Your task to perform on an android device: Clear the cart on walmart. Search for "asus rog" on walmart, select the first entry, add it to the cart, then select checkout. Image 0: 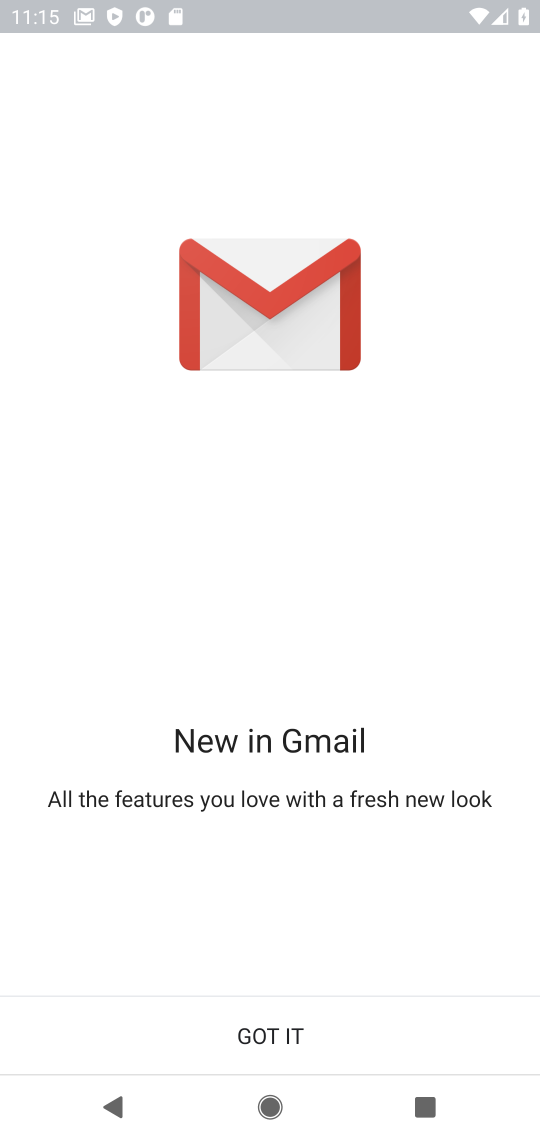
Step 0: press home button
Your task to perform on an android device: Clear the cart on walmart. Search for "asus rog" on walmart, select the first entry, add it to the cart, then select checkout. Image 1: 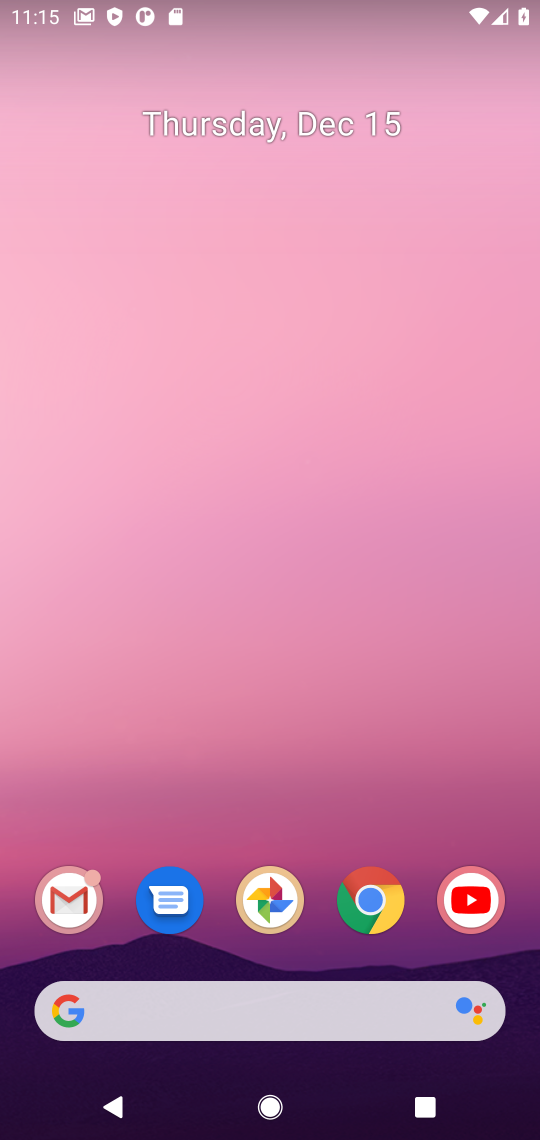
Step 1: click (391, 898)
Your task to perform on an android device: Clear the cart on walmart. Search for "asus rog" on walmart, select the first entry, add it to the cart, then select checkout. Image 2: 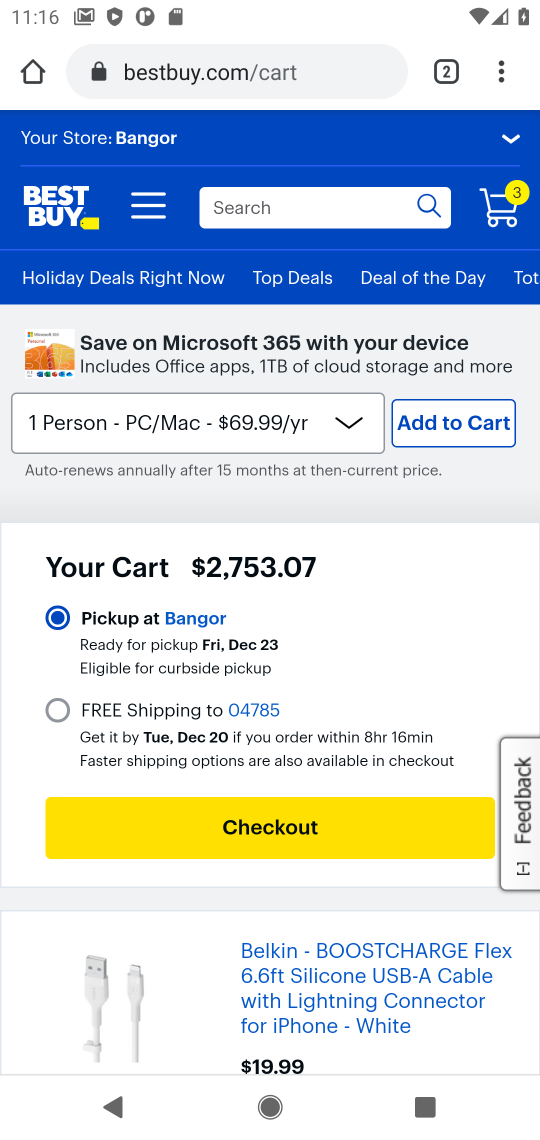
Step 2: click (349, 75)
Your task to perform on an android device: Clear the cart on walmart. Search for "asus rog" on walmart, select the first entry, add it to the cart, then select checkout. Image 3: 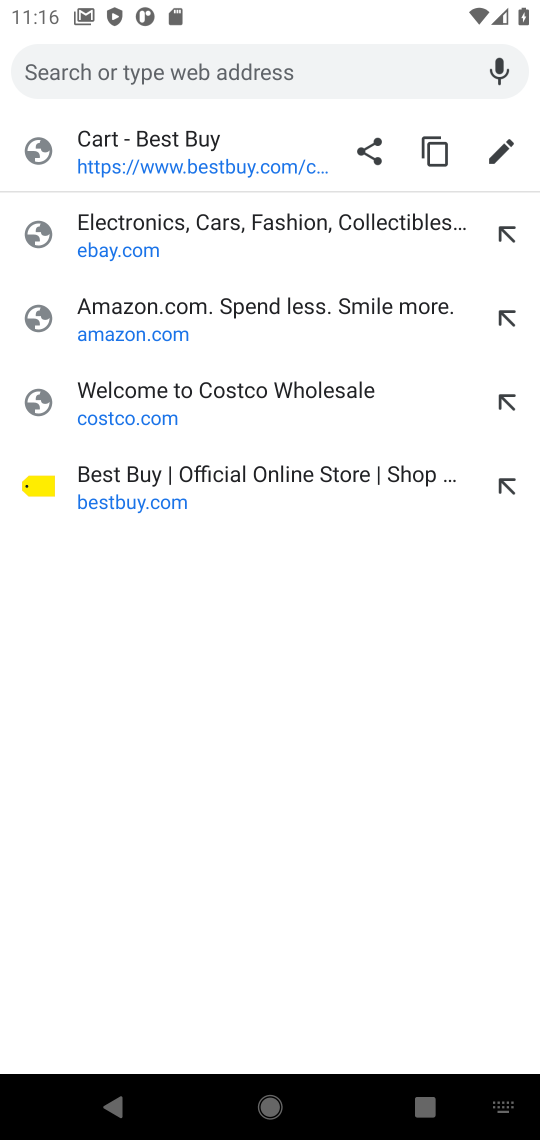
Step 3: press enter
Your task to perform on an android device: Clear the cart on walmart. Search for "asus rog" on walmart, select the first entry, add it to the cart, then select checkout. Image 4: 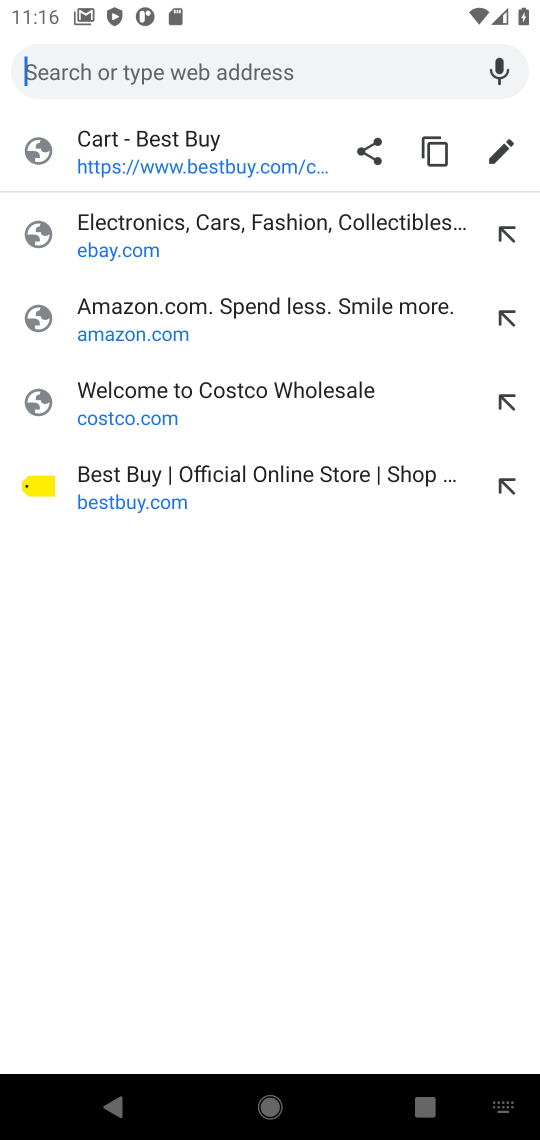
Step 4: type "walmart"
Your task to perform on an android device: Clear the cart on walmart. Search for "asus rog" on walmart, select the first entry, add it to the cart, then select checkout. Image 5: 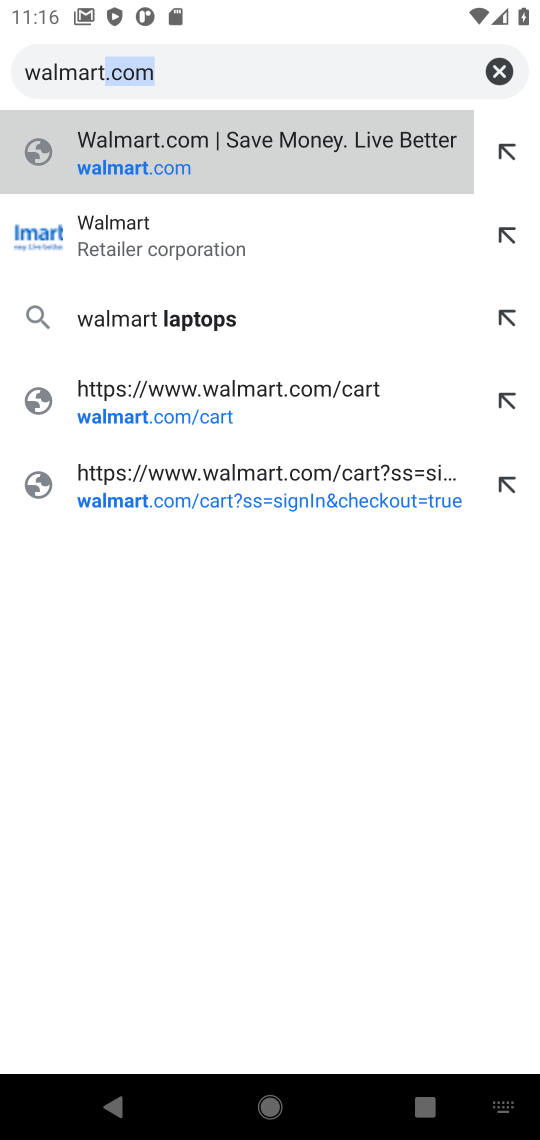
Step 5: click (292, 143)
Your task to perform on an android device: Clear the cart on walmart. Search for "asus rog" on walmart, select the first entry, add it to the cart, then select checkout. Image 6: 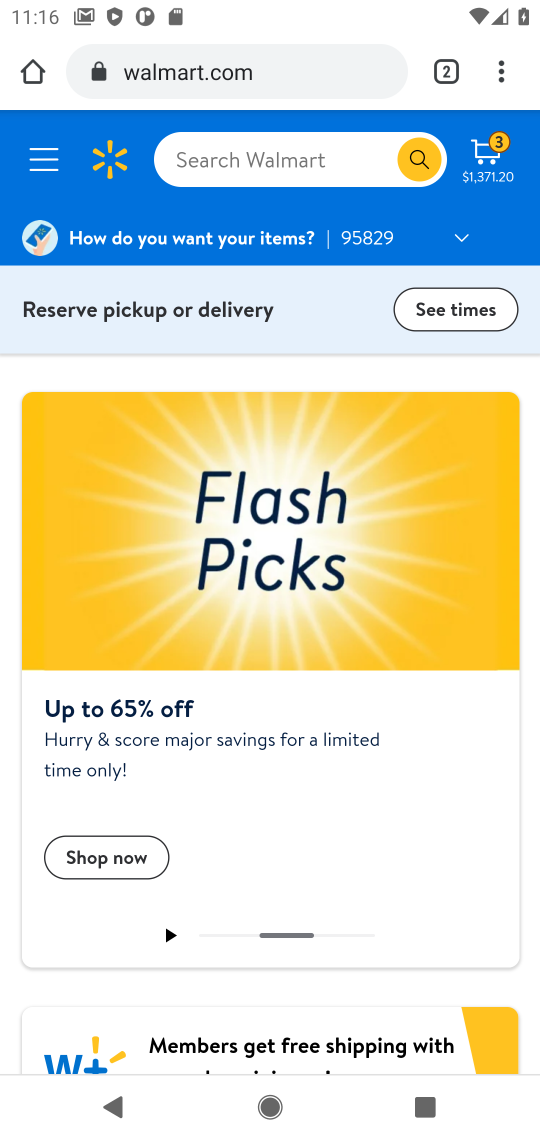
Step 6: click (494, 154)
Your task to perform on an android device: Clear the cart on walmart. Search for "asus rog" on walmart, select the first entry, add it to the cart, then select checkout. Image 7: 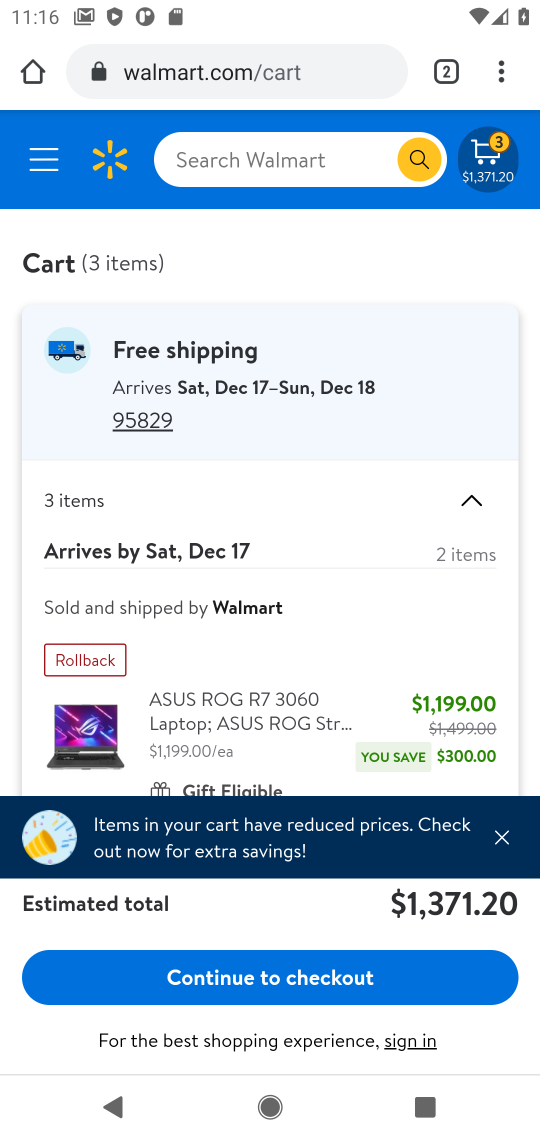
Step 7: click (502, 840)
Your task to perform on an android device: Clear the cart on walmart. Search for "asus rog" on walmart, select the first entry, add it to the cart, then select checkout. Image 8: 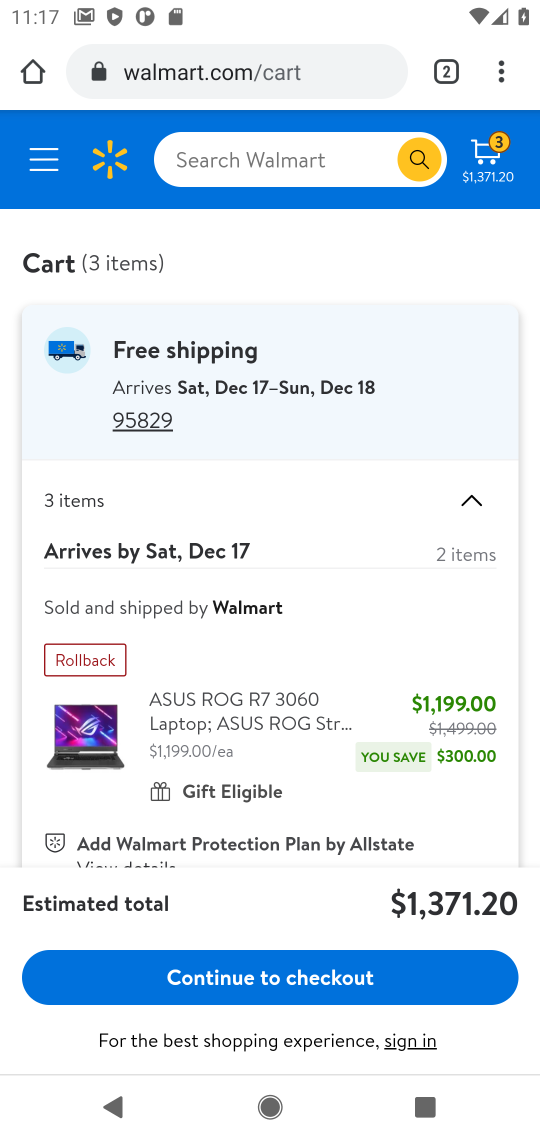
Step 8: drag from (315, 782) to (440, 440)
Your task to perform on an android device: Clear the cart on walmart. Search for "asus rog" on walmart, select the first entry, add it to the cart, then select checkout. Image 9: 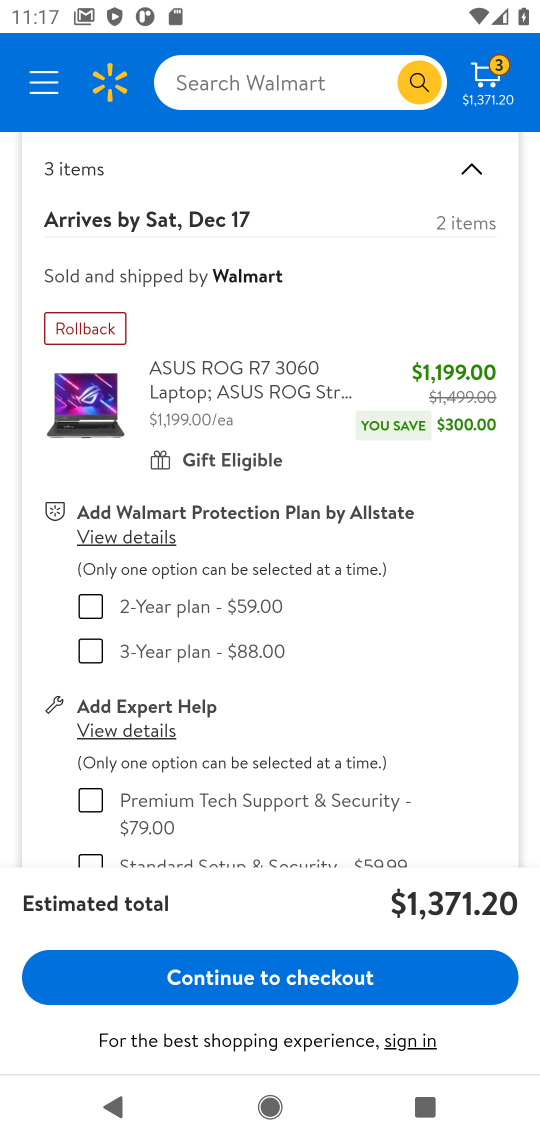
Step 9: drag from (307, 674) to (456, 385)
Your task to perform on an android device: Clear the cart on walmart. Search for "asus rog" on walmart, select the first entry, add it to the cart, then select checkout. Image 10: 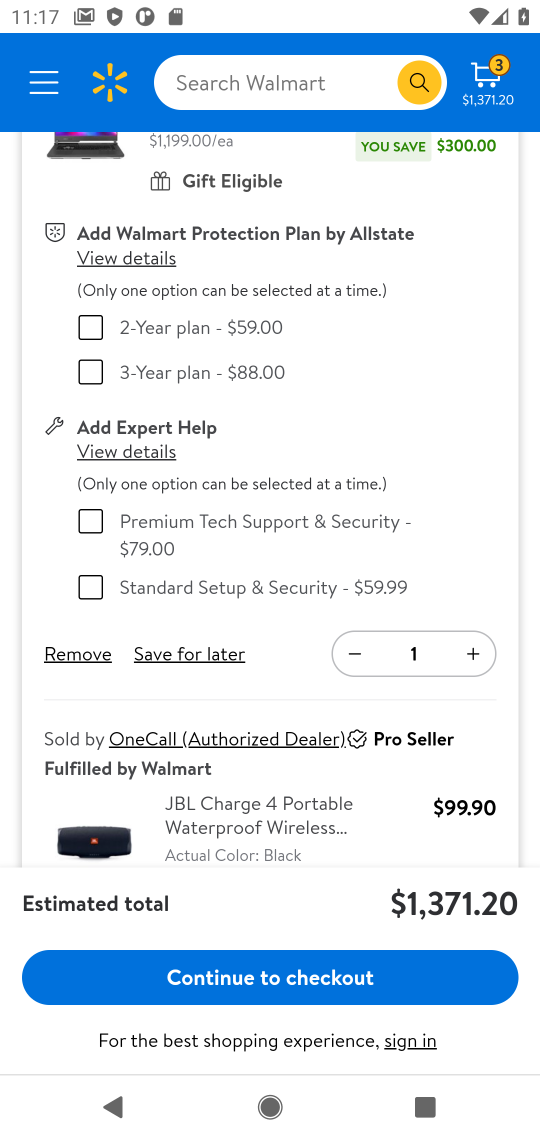
Step 10: click (79, 651)
Your task to perform on an android device: Clear the cart on walmart. Search for "asus rog" on walmart, select the first entry, add it to the cart, then select checkout. Image 11: 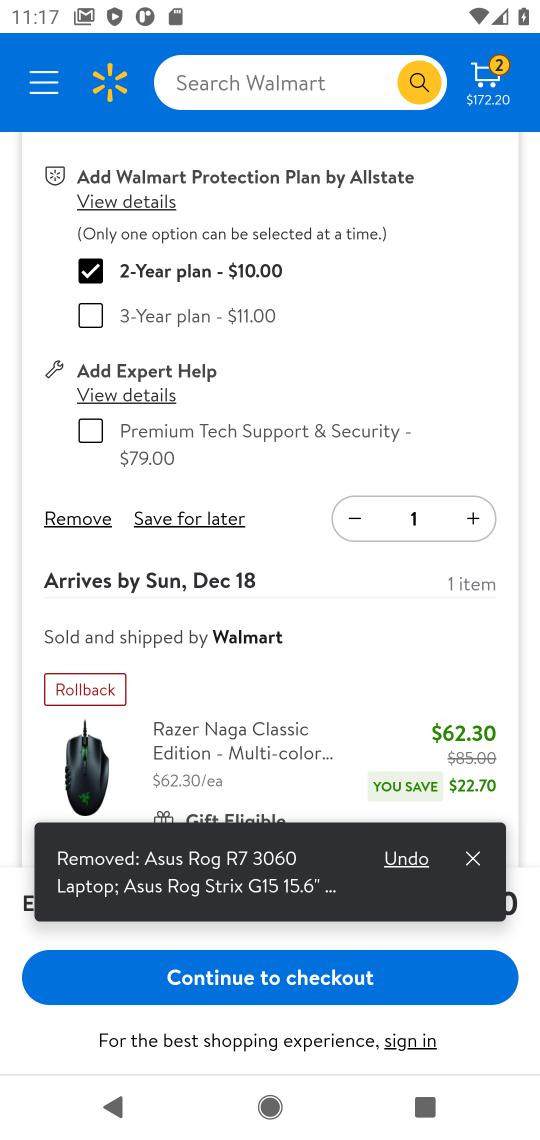
Step 11: click (84, 520)
Your task to perform on an android device: Clear the cart on walmart. Search for "asus rog" on walmart, select the first entry, add it to the cart, then select checkout. Image 12: 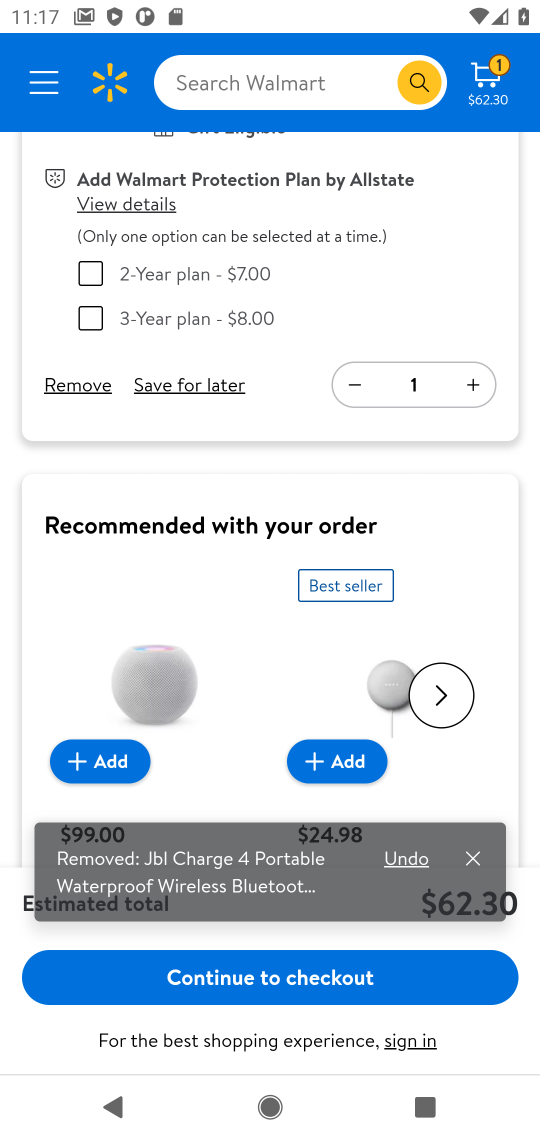
Step 12: click (88, 384)
Your task to perform on an android device: Clear the cart on walmart. Search for "asus rog" on walmart, select the first entry, add it to the cart, then select checkout. Image 13: 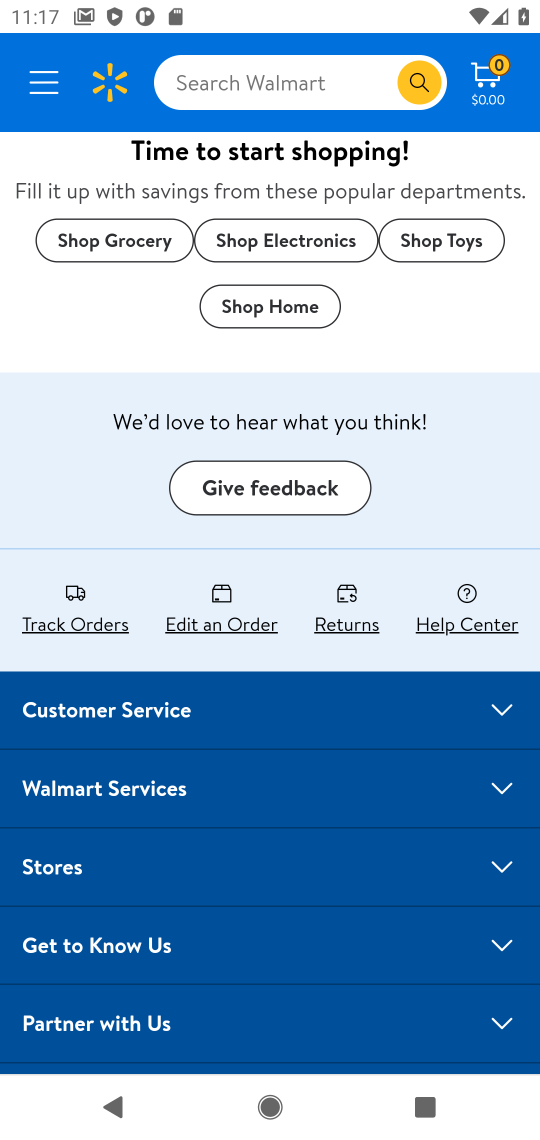
Step 13: click (331, 86)
Your task to perform on an android device: Clear the cart on walmart. Search for "asus rog" on walmart, select the first entry, add it to the cart, then select checkout. Image 14: 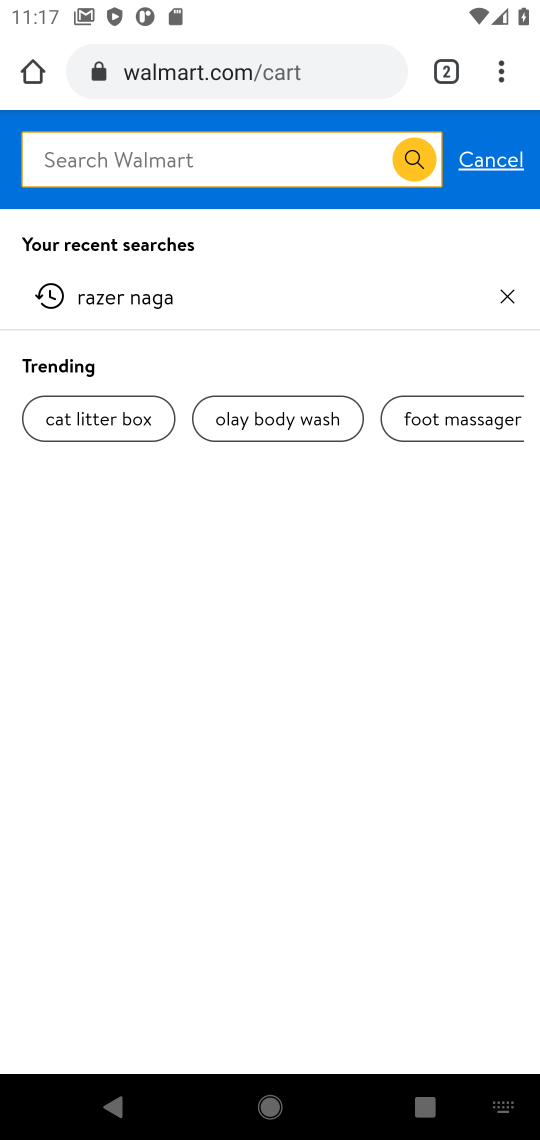
Step 14: press enter
Your task to perform on an android device: Clear the cart on walmart. Search for "asus rog" on walmart, select the first entry, add it to the cart, then select checkout. Image 15: 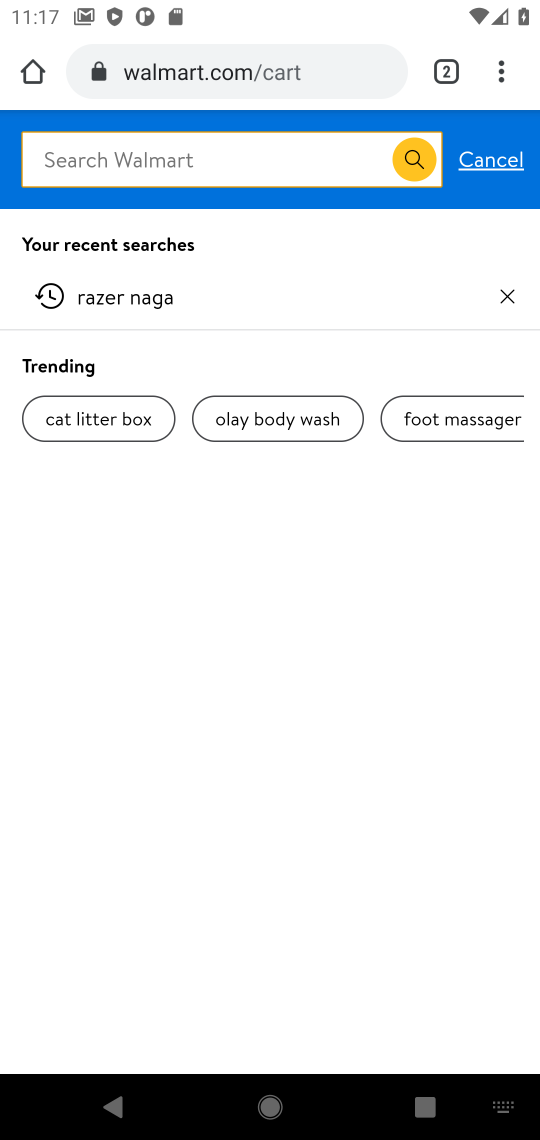
Step 15: type "asus rog"
Your task to perform on an android device: Clear the cart on walmart. Search for "asus rog" on walmart, select the first entry, add it to the cart, then select checkout. Image 16: 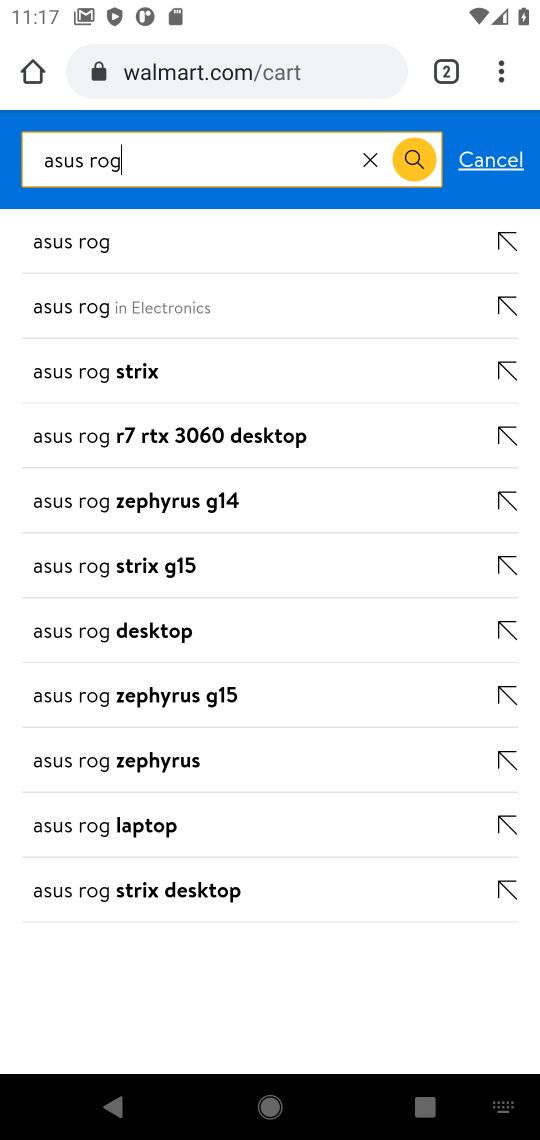
Step 16: click (84, 240)
Your task to perform on an android device: Clear the cart on walmart. Search for "asus rog" on walmart, select the first entry, add it to the cart, then select checkout. Image 17: 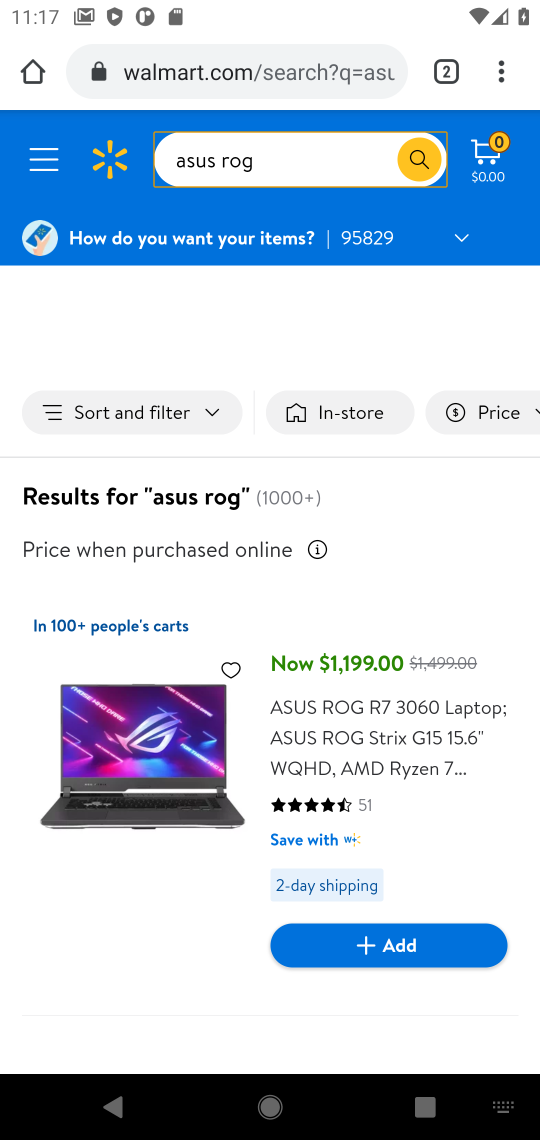
Step 17: click (156, 761)
Your task to perform on an android device: Clear the cart on walmart. Search for "asus rog" on walmart, select the first entry, add it to the cart, then select checkout. Image 18: 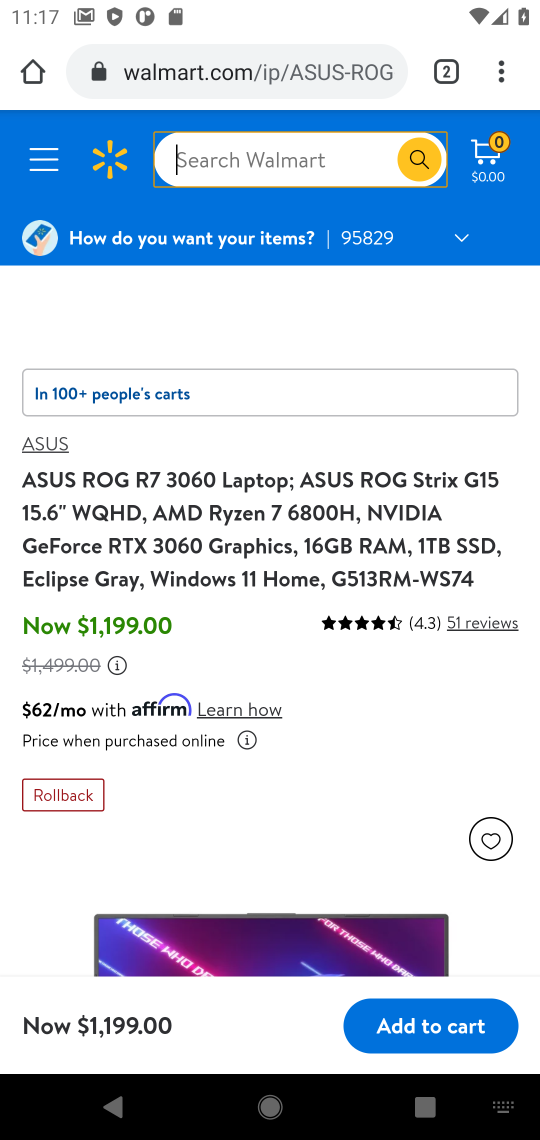
Step 18: click (414, 1023)
Your task to perform on an android device: Clear the cart on walmart. Search for "asus rog" on walmart, select the first entry, add it to the cart, then select checkout. Image 19: 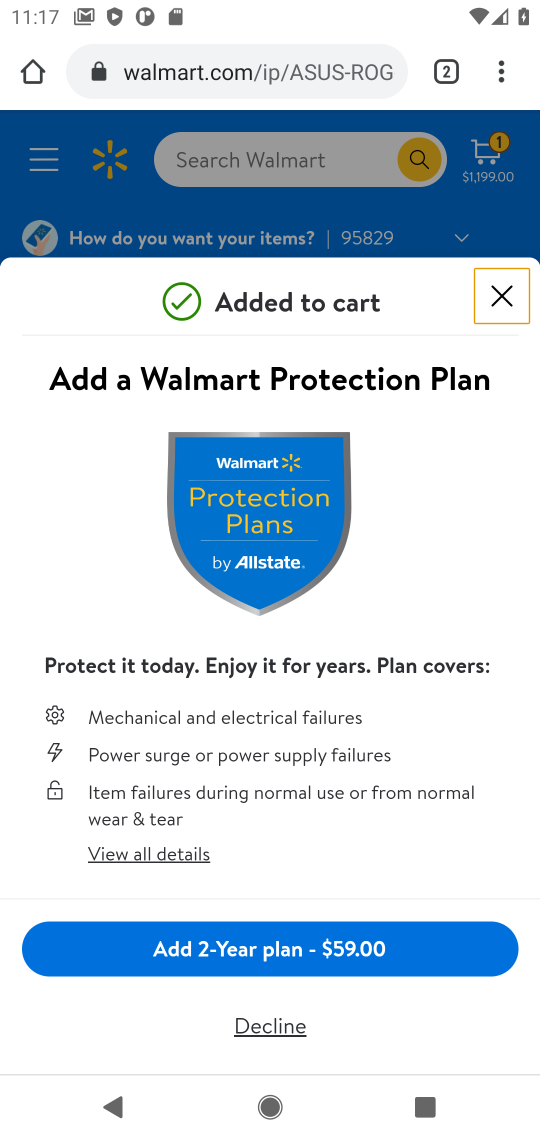
Step 19: click (508, 285)
Your task to perform on an android device: Clear the cart on walmart. Search for "asus rog" on walmart, select the first entry, add it to the cart, then select checkout. Image 20: 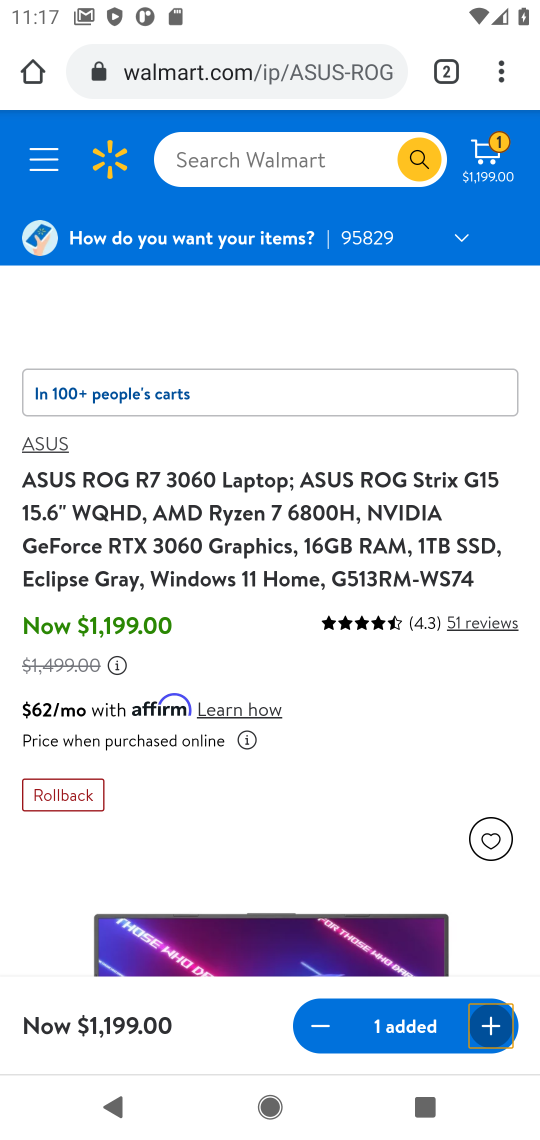
Step 20: click (498, 162)
Your task to perform on an android device: Clear the cart on walmart. Search for "asus rog" on walmart, select the first entry, add it to the cart, then select checkout. Image 21: 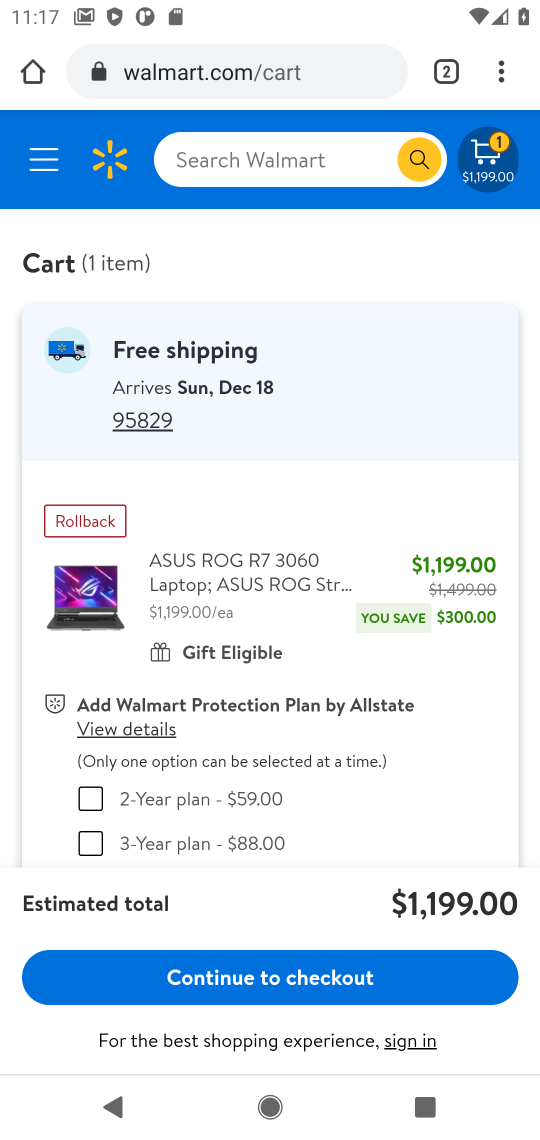
Step 21: click (326, 969)
Your task to perform on an android device: Clear the cart on walmart. Search for "asus rog" on walmart, select the first entry, add it to the cart, then select checkout. Image 22: 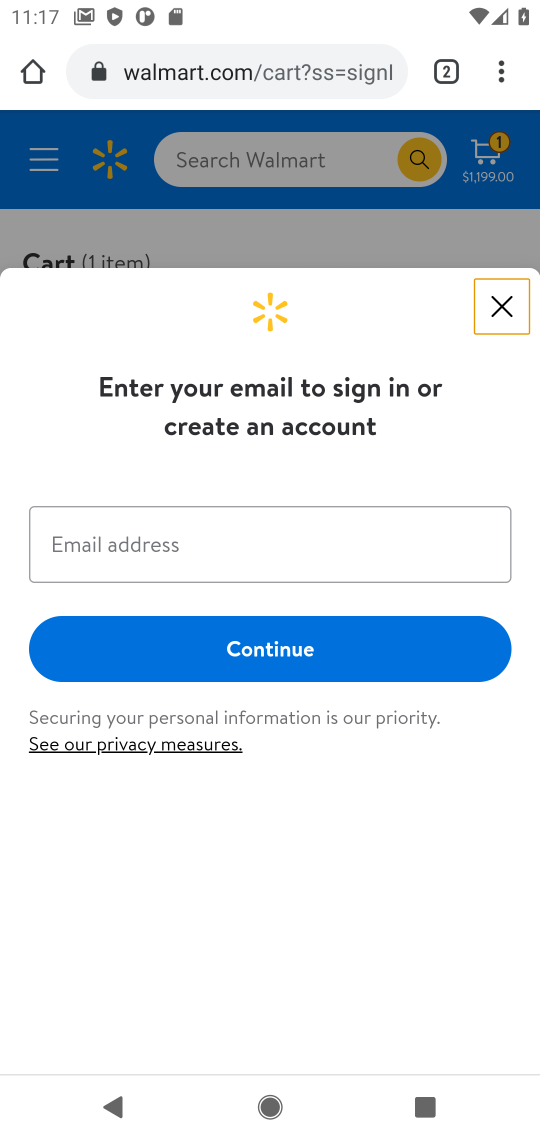
Step 22: task complete